Your task to perform on an android device: Show me productivity apps on the Play Store Image 0: 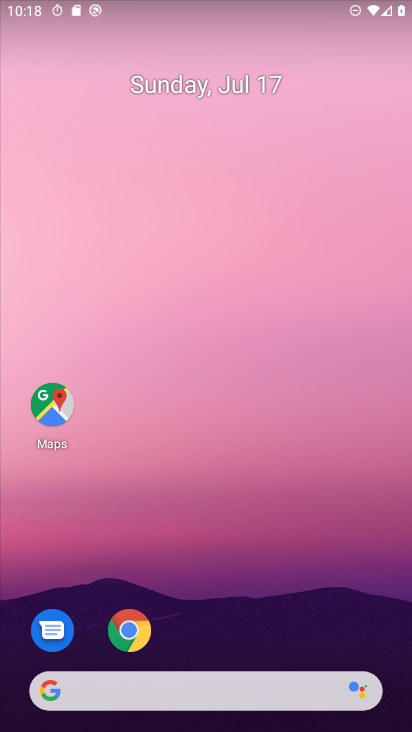
Step 0: drag from (200, 644) to (194, 204)
Your task to perform on an android device: Show me productivity apps on the Play Store Image 1: 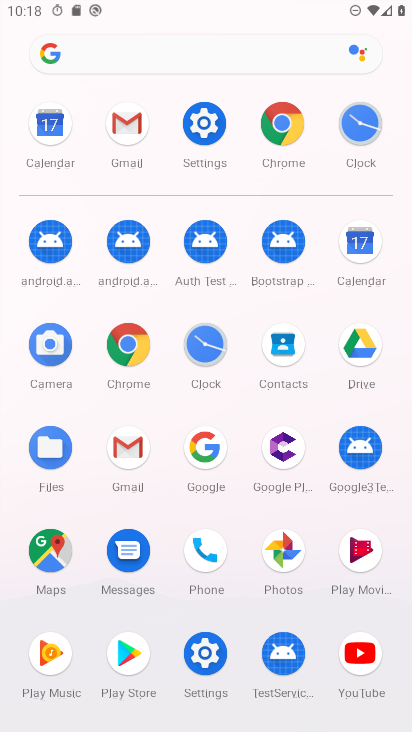
Step 1: click (124, 641)
Your task to perform on an android device: Show me productivity apps on the Play Store Image 2: 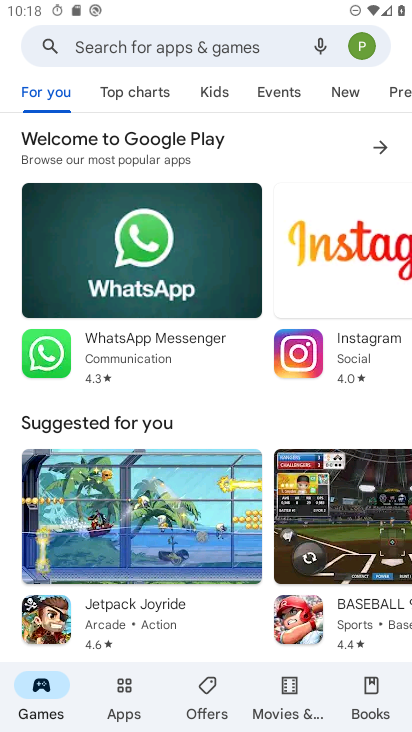
Step 2: click (139, 688)
Your task to perform on an android device: Show me productivity apps on the Play Store Image 3: 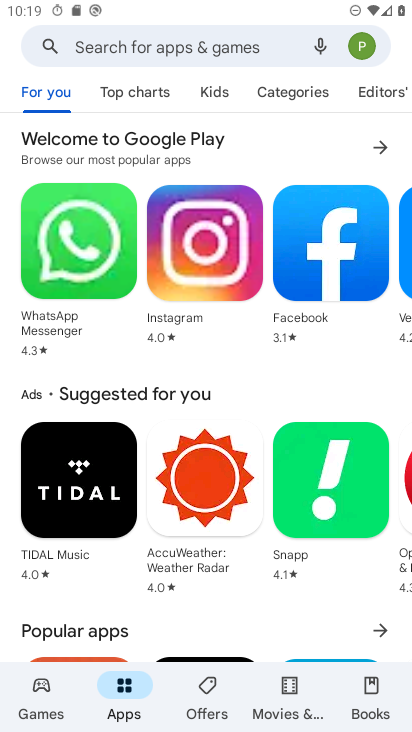
Step 3: task complete